Your task to perform on an android device: set the stopwatch Image 0: 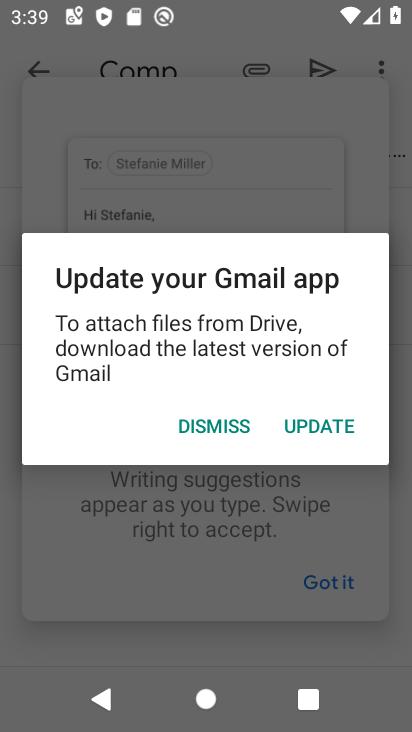
Step 0: press home button
Your task to perform on an android device: set the stopwatch Image 1: 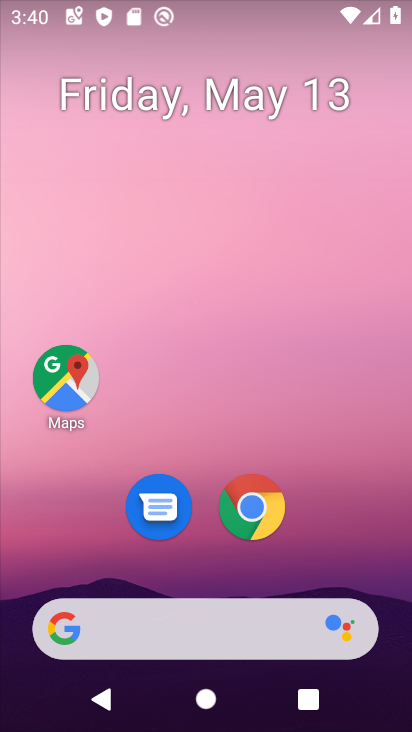
Step 1: drag from (187, 560) to (230, 152)
Your task to perform on an android device: set the stopwatch Image 2: 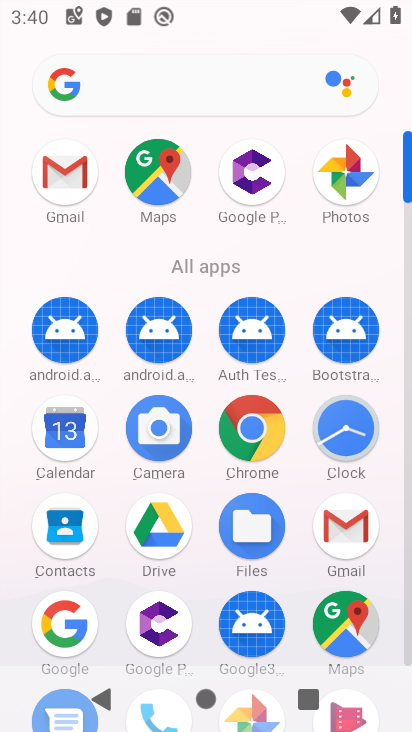
Step 2: click (328, 434)
Your task to perform on an android device: set the stopwatch Image 3: 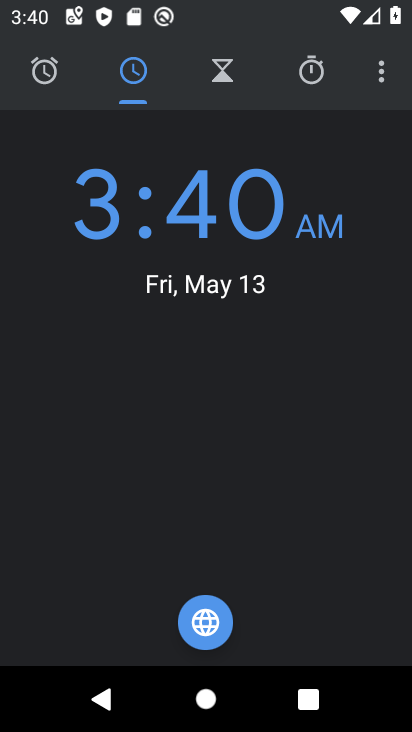
Step 3: click (330, 69)
Your task to perform on an android device: set the stopwatch Image 4: 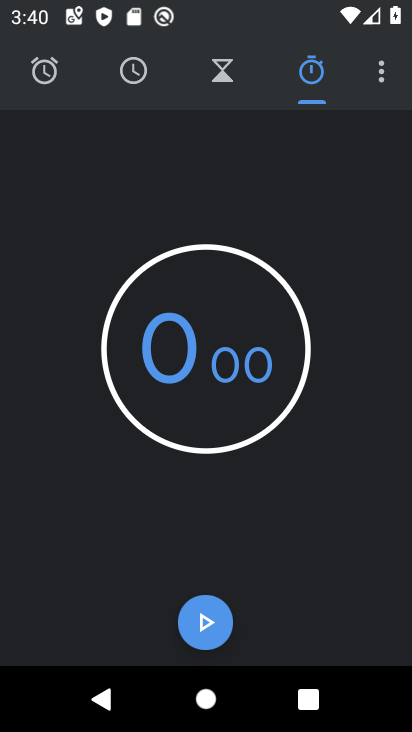
Step 4: click (199, 630)
Your task to perform on an android device: set the stopwatch Image 5: 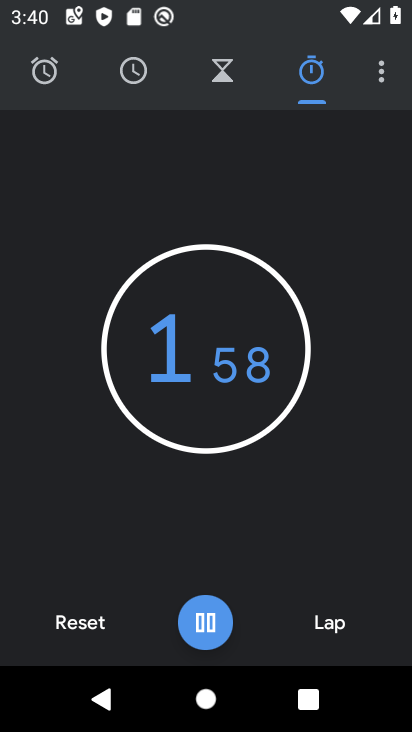
Step 5: task complete